Your task to perform on an android device: toggle notifications settings in the gmail app Image 0: 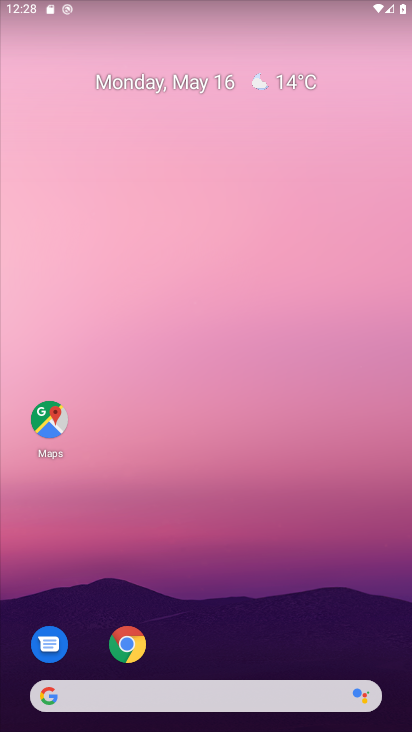
Step 0: drag from (354, 493) to (359, 231)
Your task to perform on an android device: toggle notifications settings in the gmail app Image 1: 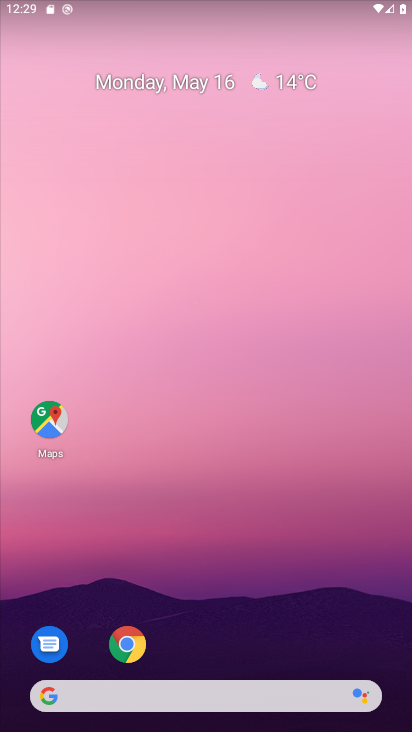
Step 1: drag from (340, 598) to (335, 156)
Your task to perform on an android device: toggle notifications settings in the gmail app Image 2: 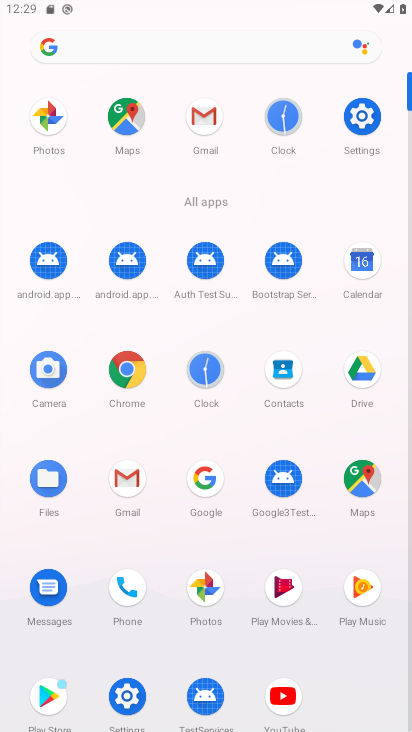
Step 2: click (200, 122)
Your task to perform on an android device: toggle notifications settings in the gmail app Image 3: 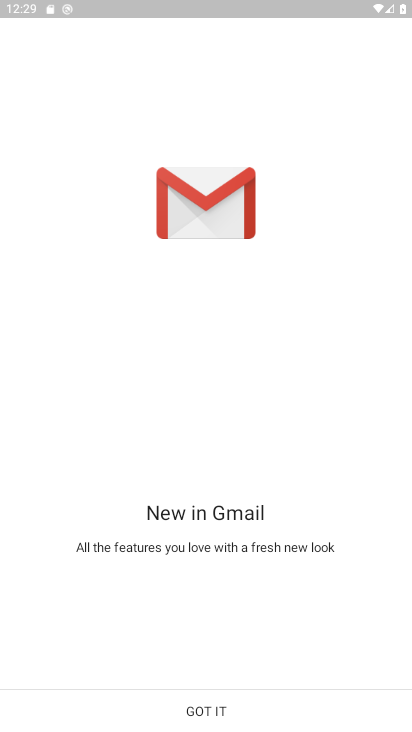
Step 3: click (221, 717)
Your task to perform on an android device: toggle notifications settings in the gmail app Image 4: 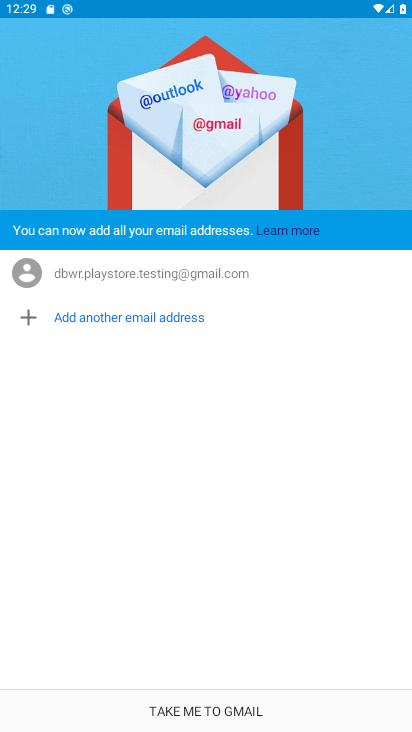
Step 4: click (261, 716)
Your task to perform on an android device: toggle notifications settings in the gmail app Image 5: 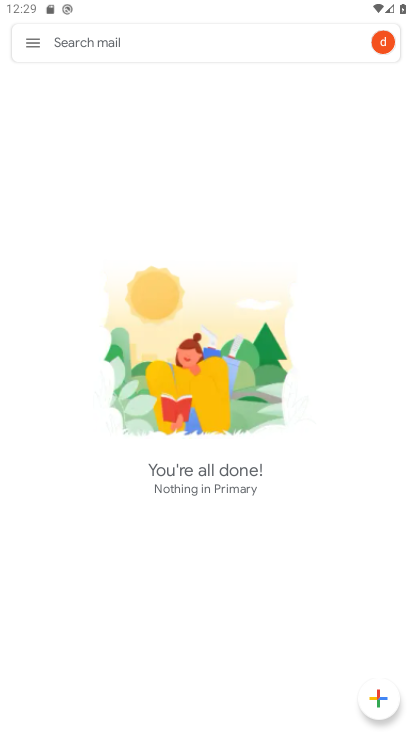
Step 5: click (28, 44)
Your task to perform on an android device: toggle notifications settings in the gmail app Image 6: 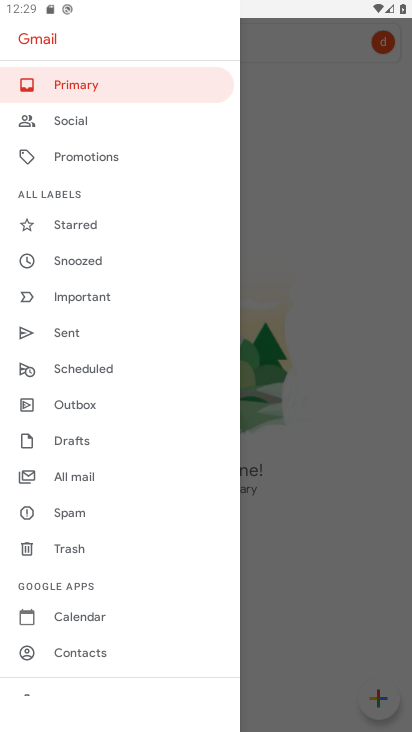
Step 6: drag from (167, 586) to (178, 319)
Your task to perform on an android device: toggle notifications settings in the gmail app Image 7: 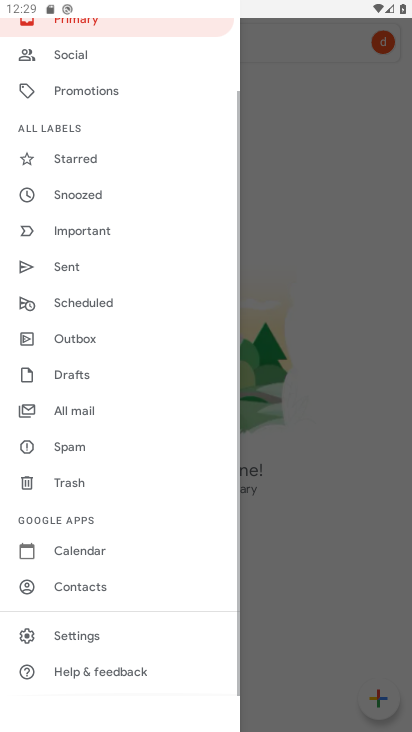
Step 7: click (111, 638)
Your task to perform on an android device: toggle notifications settings in the gmail app Image 8: 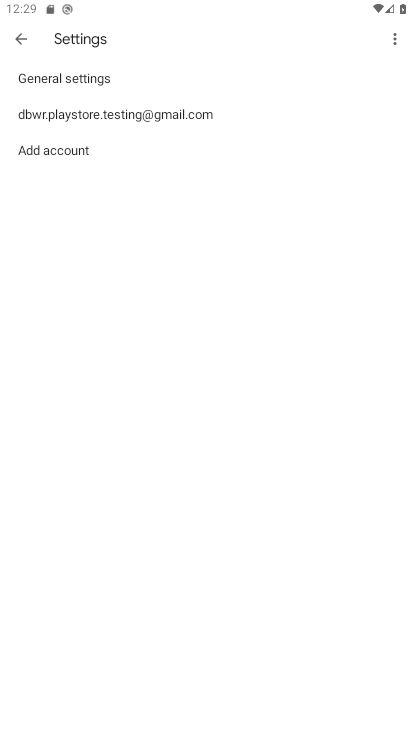
Step 8: click (205, 123)
Your task to perform on an android device: toggle notifications settings in the gmail app Image 9: 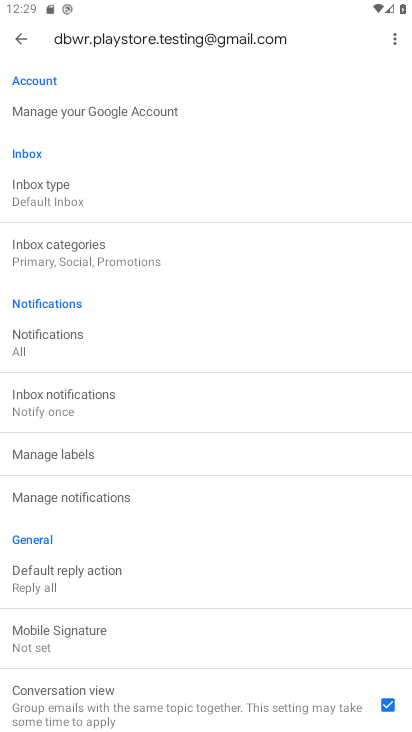
Step 9: click (144, 508)
Your task to perform on an android device: toggle notifications settings in the gmail app Image 10: 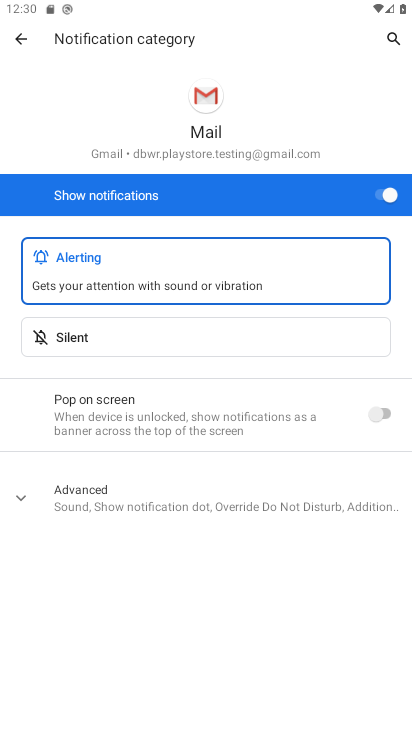
Step 10: click (375, 191)
Your task to perform on an android device: toggle notifications settings in the gmail app Image 11: 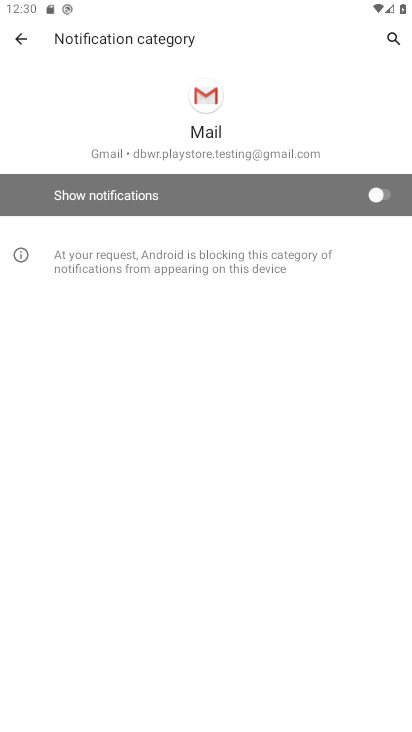
Step 11: task complete